Your task to perform on an android device: toggle notification dots Image 0: 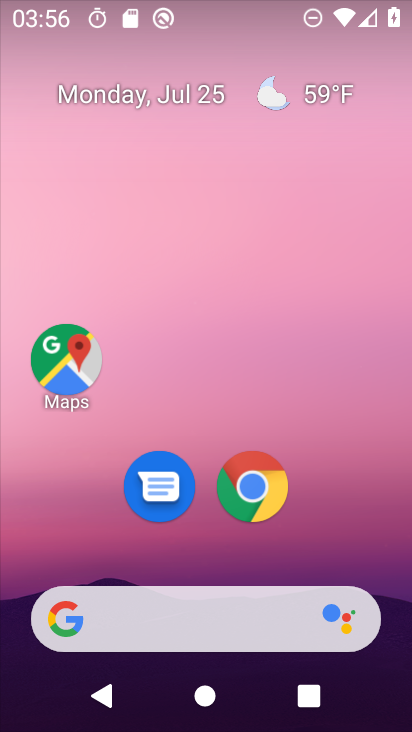
Step 0: drag from (164, 539) to (238, 3)
Your task to perform on an android device: toggle notification dots Image 1: 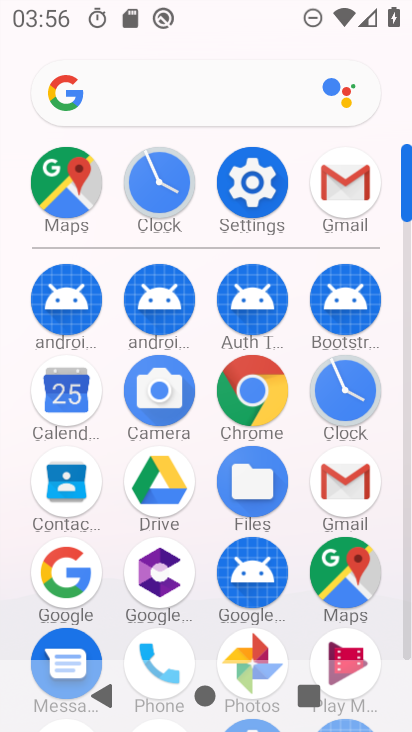
Step 1: click (249, 172)
Your task to perform on an android device: toggle notification dots Image 2: 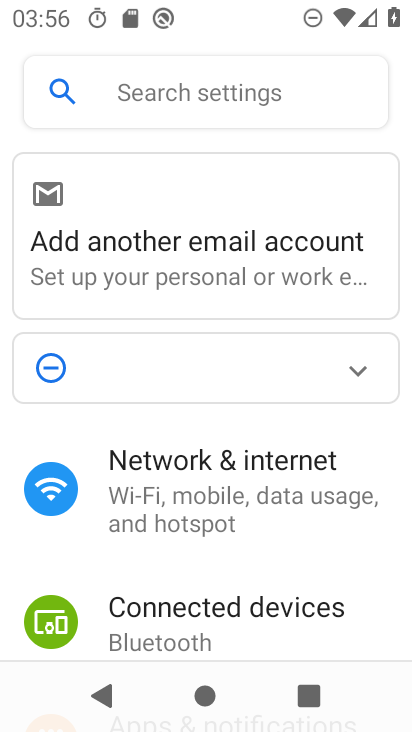
Step 2: drag from (222, 620) to (268, 247)
Your task to perform on an android device: toggle notification dots Image 3: 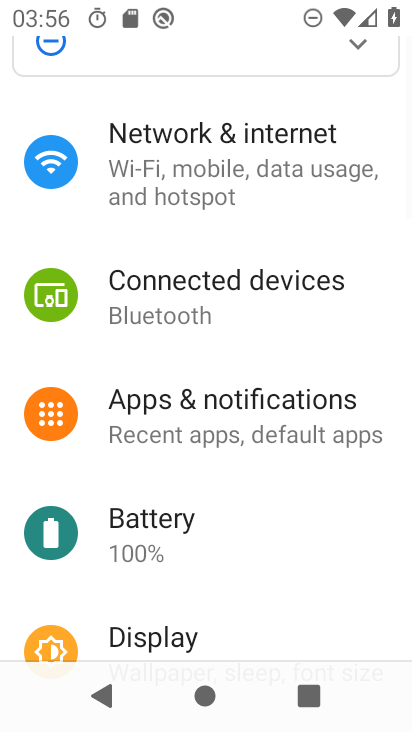
Step 3: click (177, 419)
Your task to perform on an android device: toggle notification dots Image 4: 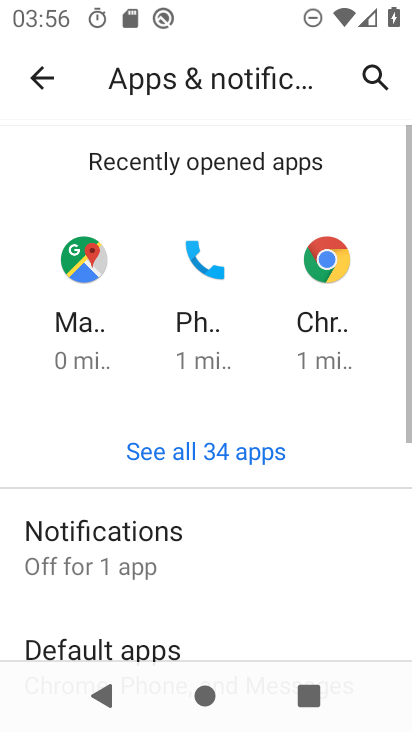
Step 4: drag from (115, 630) to (217, 296)
Your task to perform on an android device: toggle notification dots Image 5: 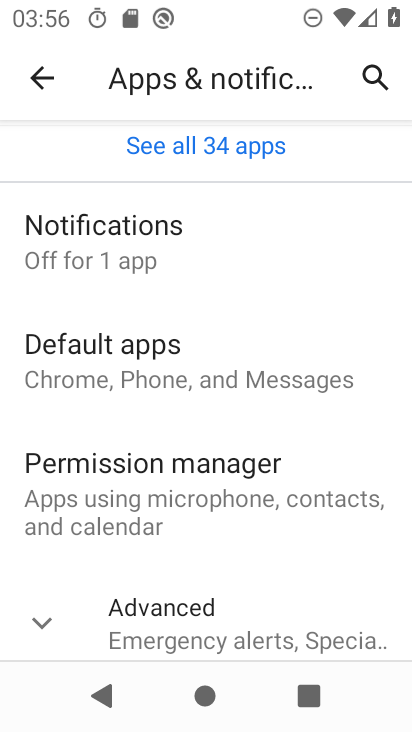
Step 5: click (144, 251)
Your task to perform on an android device: toggle notification dots Image 6: 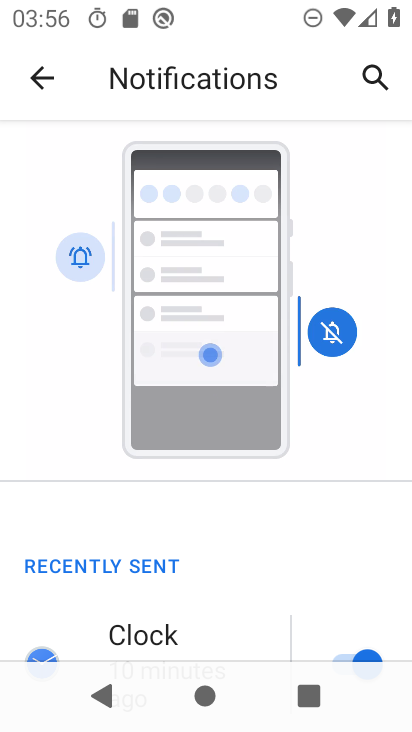
Step 6: drag from (160, 573) to (258, 107)
Your task to perform on an android device: toggle notification dots Image 7: 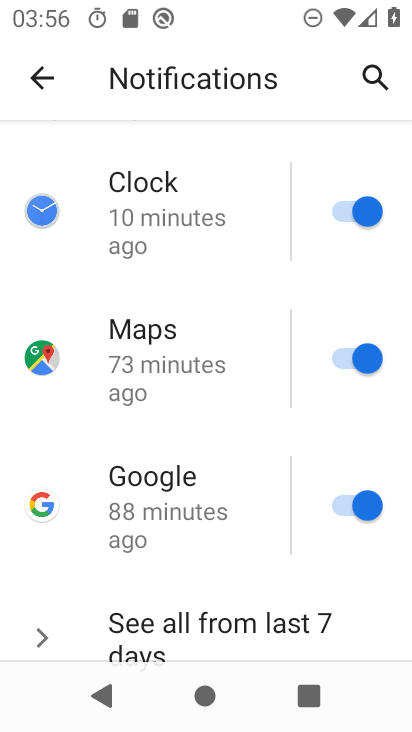
Step 7: drag from (209, 616) to (277, 2)
Your task to perform on an android device: toggle notification dots Image 8: 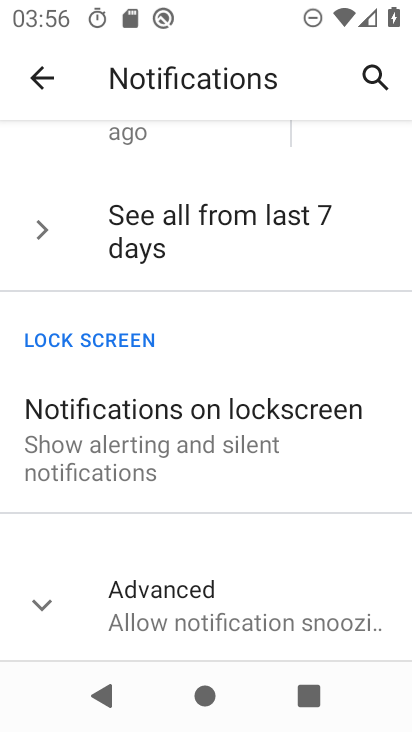
Step 8: click (207, 606)
Your task to perform on an android device: toggle notification dots Image 9: 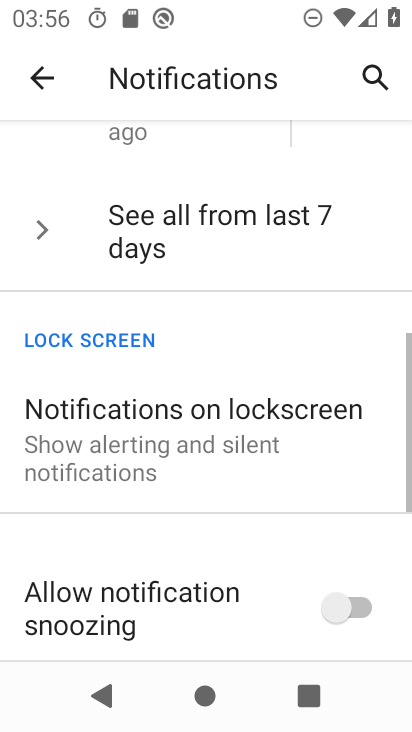
Step 9: drag from (205, 599) to (265, 146)
Your task to perform on an android device: toggle notification dots Image 10: 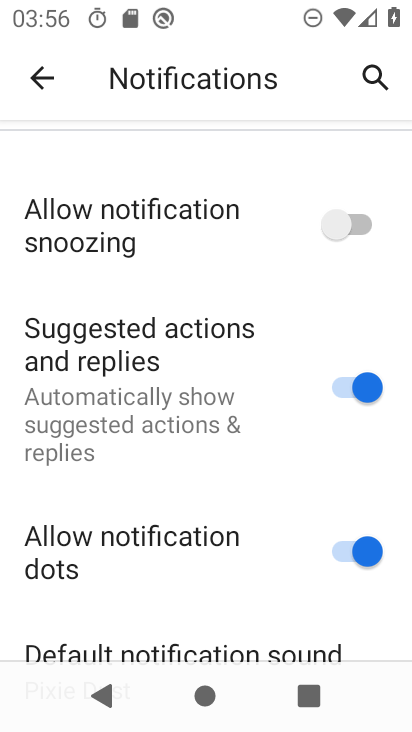
Step 10: click (365, 561)
Your task to perform on an android device: toggle notification dots Image 11: 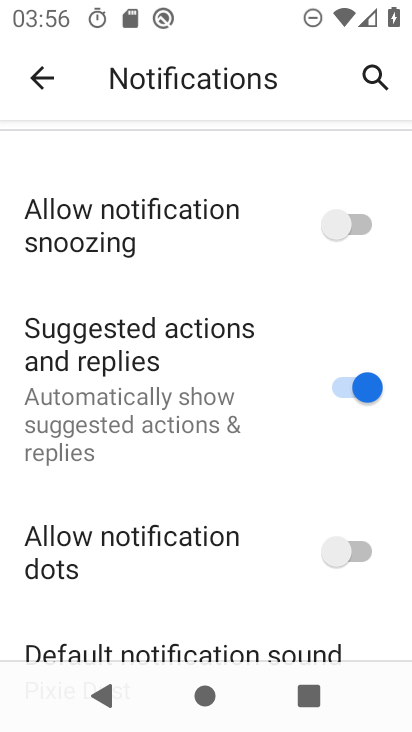
Step 11: task complete